Your task to perform on an android device: Open sound settings Image 0: 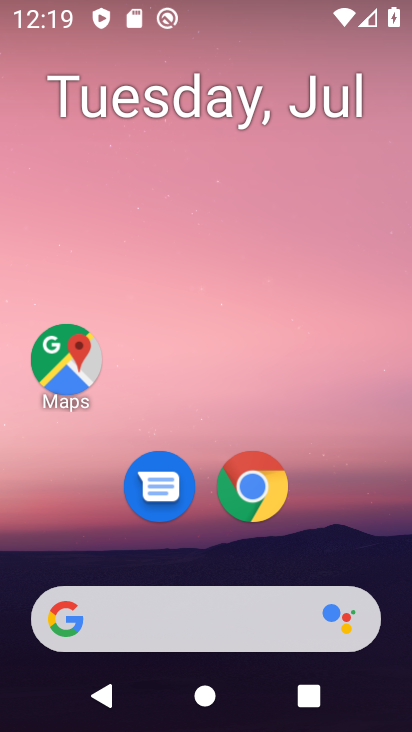
Step 0: drag from (346, 527) to (350, 72)
Your task to perform on an android device: Open sound settings Image 1: 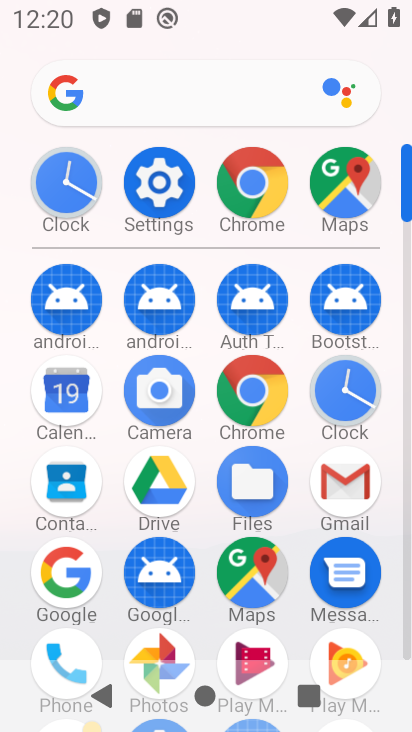
Step 1: click (163, 189)
Your task to perform on an android device: Open sound settings Image 2: 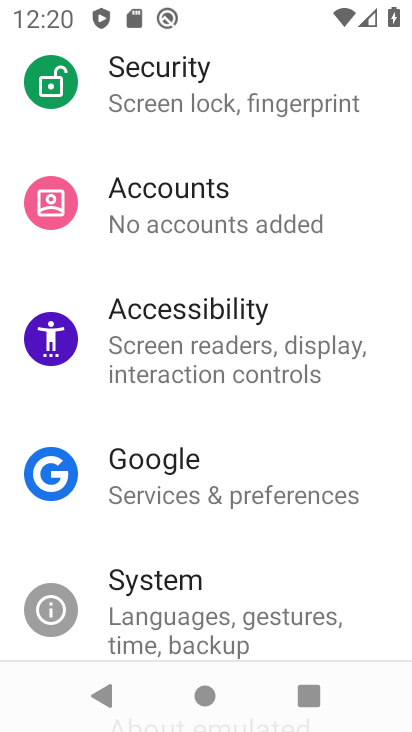
Step 2: drag from (381, 196) to (381, 372)
Your task to perform on an android device: Open sound settings Image 3: 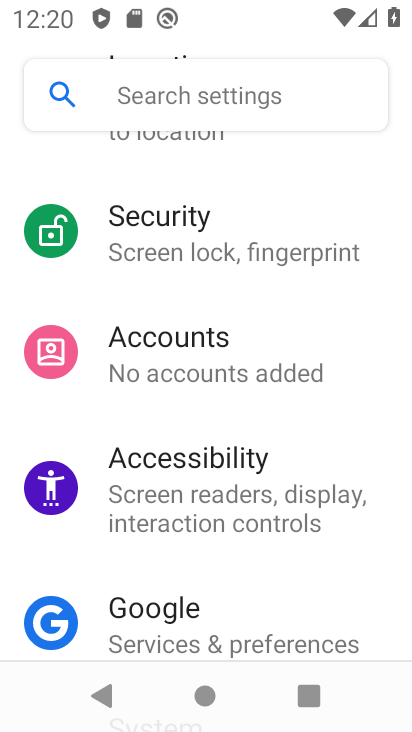
Step 3: drag from (372, 204) to (372, 356)
Your task to perform on an android device: Open sound settings Image 4: 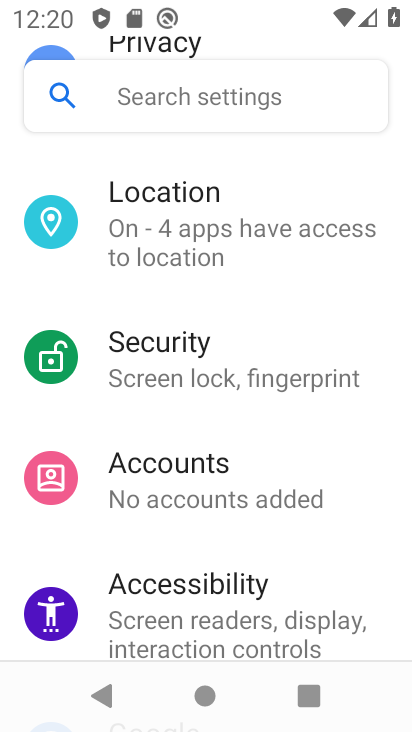
Step 4: drag from (369, 172) to (369, 350)
Your task to perform on an android device: Open sound settings Image 5: 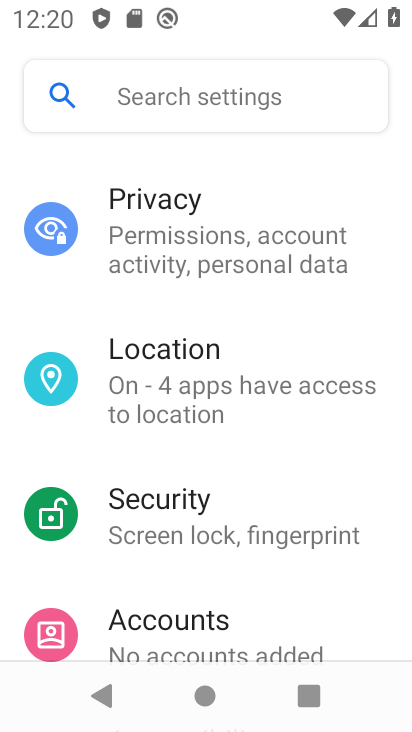
Step 5: drag from (369, 200) to (370, 352)
Your task to perform on an android device: Open sound settings Image 6: 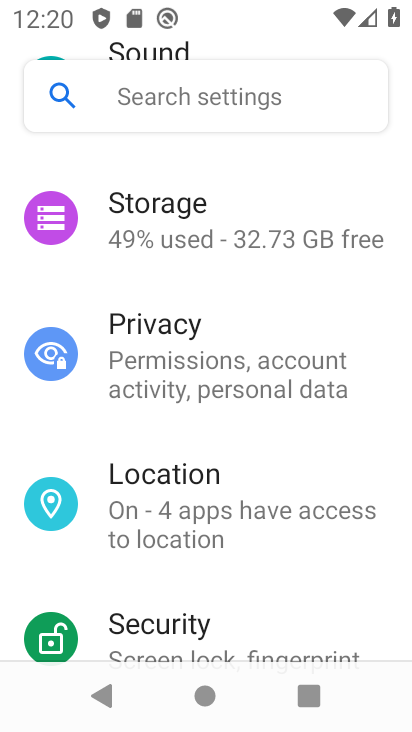
Step 6: drag from (387, 181) to (381, 352)
Your task to perform on an android device: Open sound settings Image 7: 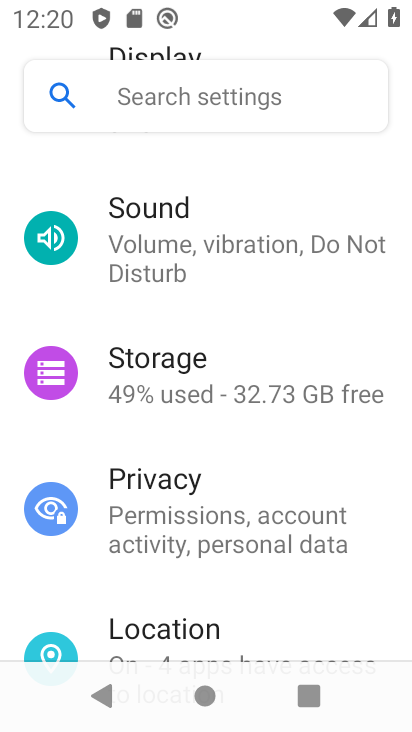
Step 7: drag from (385, 189) to (391, 363)
Your task to perform on an android device: Open sound settings Image 8: 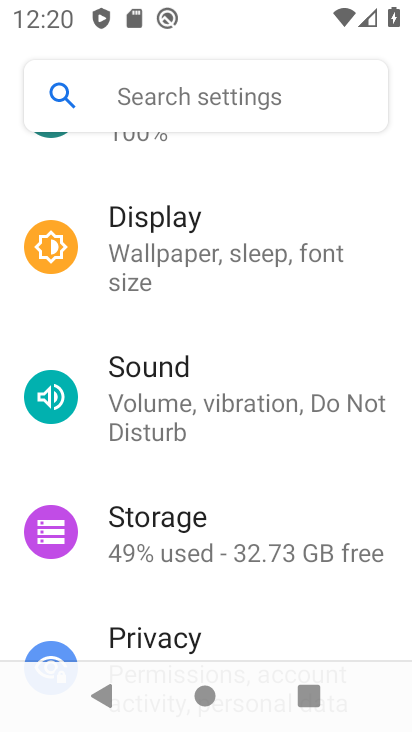
Step 8: drag from (371, 187) to (362, 360)
Your task to perform on an android device: Open sound settings Image 9: 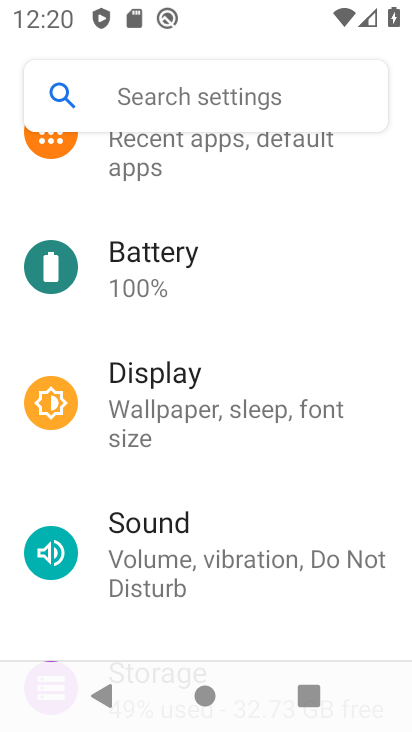
Step 9: click (321, 543)
Your task to perform on an android device: Open sound settings Image 10: 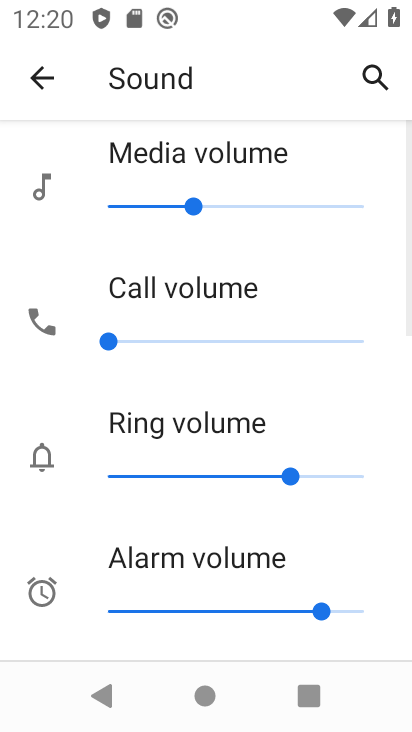
Step 10: drag from (336, 542) to (342, 423)
Your task to perform on an android device: Open sound settings Image 11: 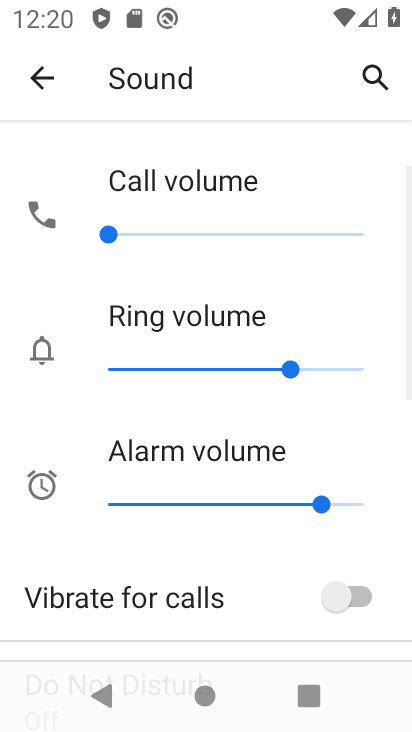
Step 11: drag from (366, 489) to (375, 424)
Your task to perform on an android device: Open sound settings Image 12: 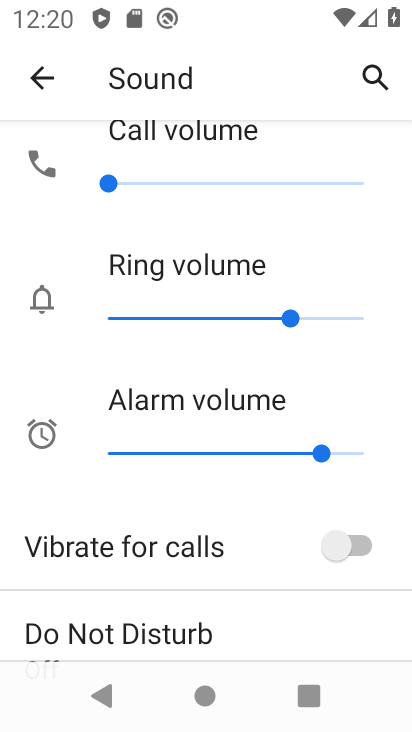
Step 12: drag from (371, 600) to (374, 464)
Your task to perform on an android device: Open sound settings Image 13: 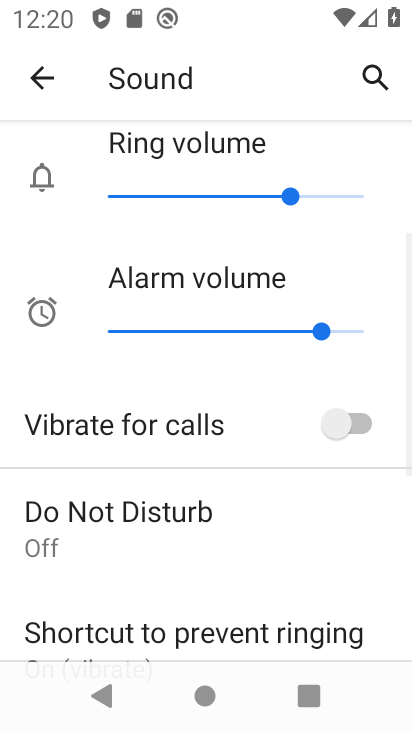
Step 13: drag from (359, 570) to (381, 443)
Your task to perform on an android device: Open sound settings Image 14: 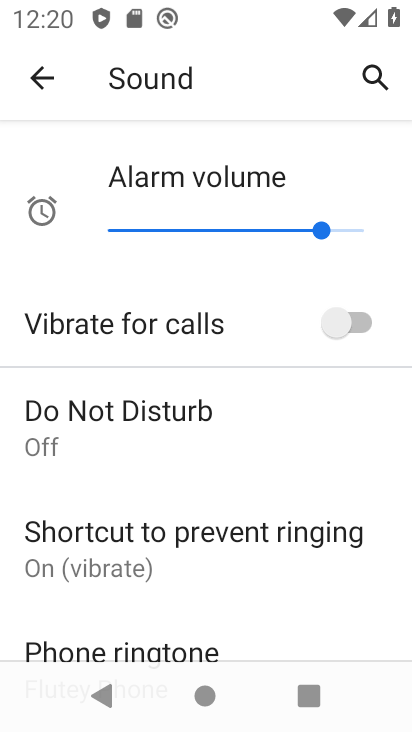
Step 14: drag from (367, 600) to (373, 478)
Your task to perform on an android device: Open sound settings Image 15: 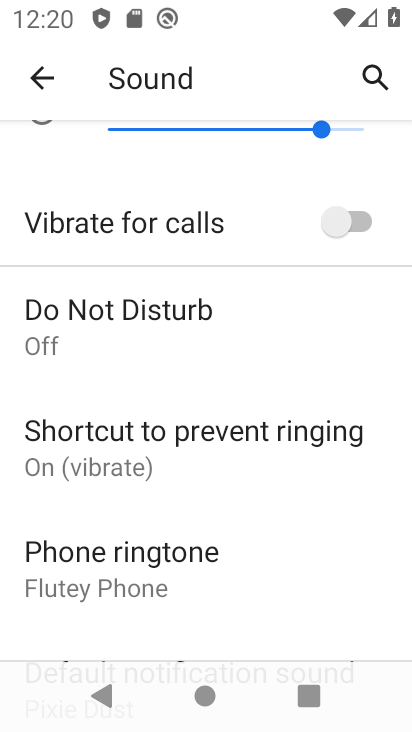
Step 15: drag from (358, 594) to (369, 440)
Your task to perform on an android device: Open sound settings Image 16: 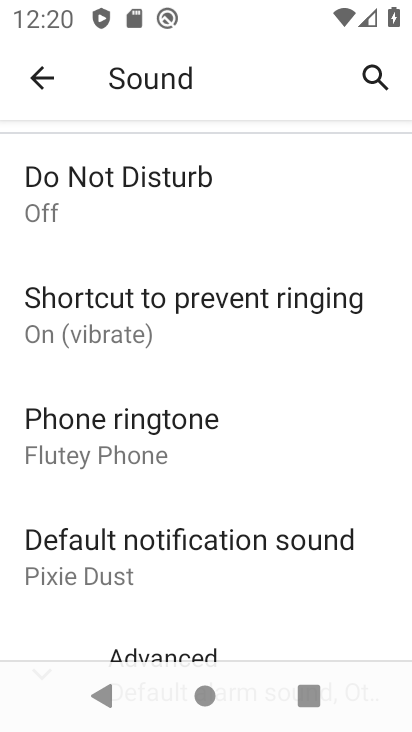
Step 16: drag from (355, 608) to (358, 425)
Your task to perform on an android device: Open sound settings Image 17: 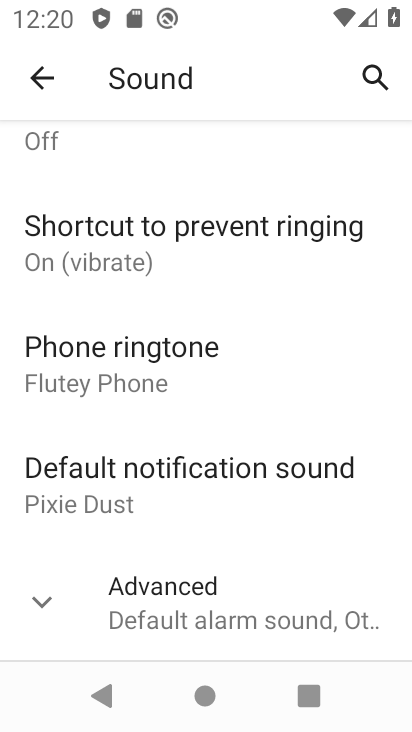
Step 17: click (323, 600)
Your task to perform on an android device: Open sound settings Image 18: 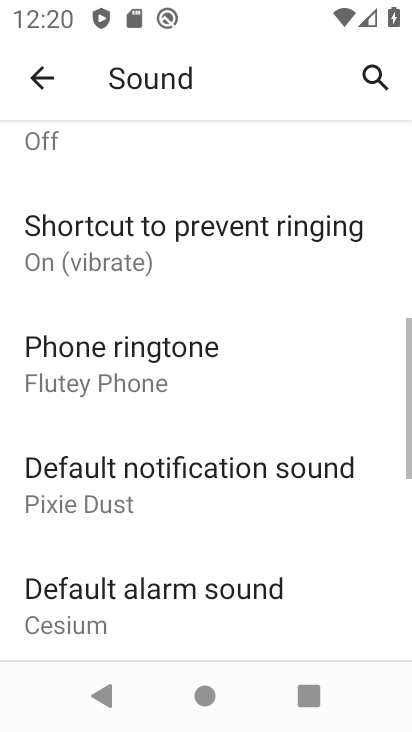
Step 18: task complete